Your task to perform on an android device: Open Youtube and go to "Your channel" Image 0: 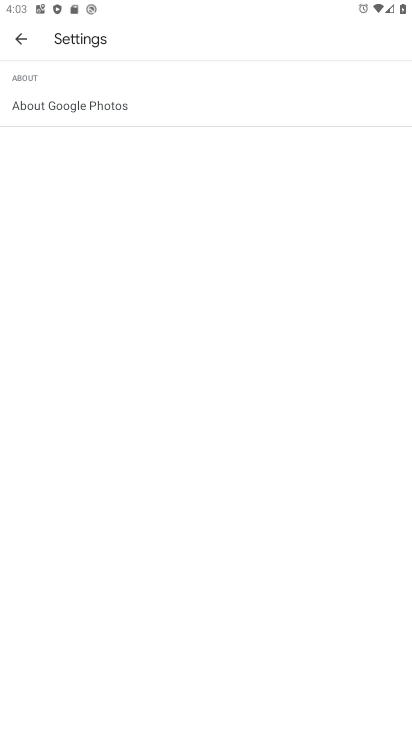
Step 0: press home button
Your task to perform on an android device: Open Youtube and go to "Your channel" Image 1: 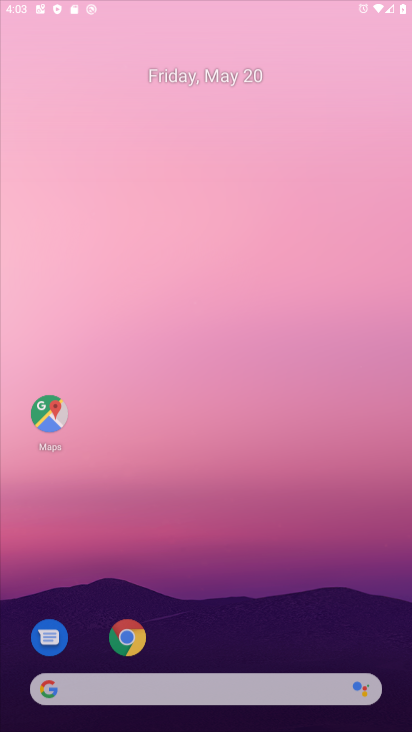
Step 1: press home button
Your task to perform on an android device: Open Youtube and go to "Your channel" Image 2: 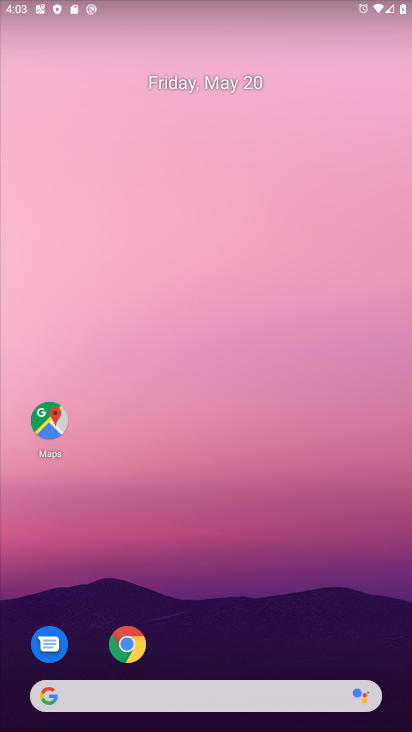
Step 2: drag from (287, 622) to (368, 55)
Your task to perform on an android device: Open Youtube and go to "Your channel" Image 3: 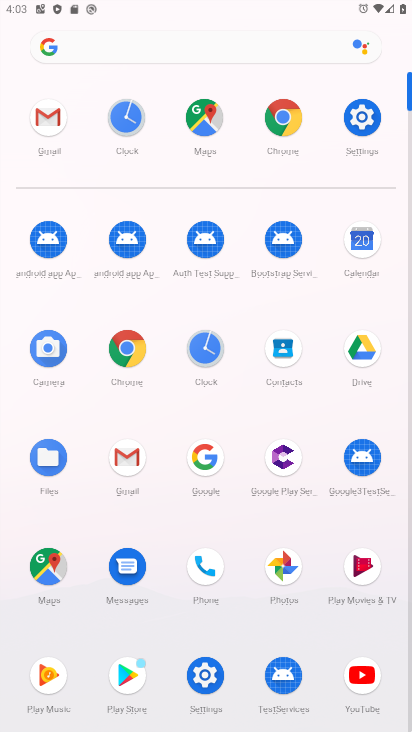
Step 3: click (373, 689)
Your task to perform on an android device: Open Youtube and go to "Your channel" Image 4: 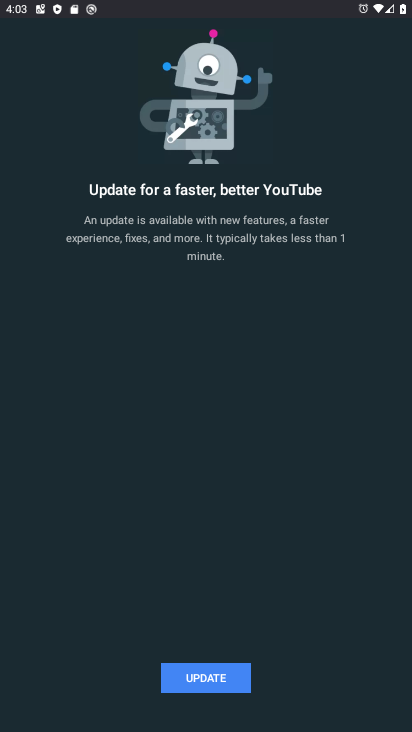
Step 4: click (228, 680)
Your task to perform on an android device: Open Youtube and go to "Your channel" Image 5: 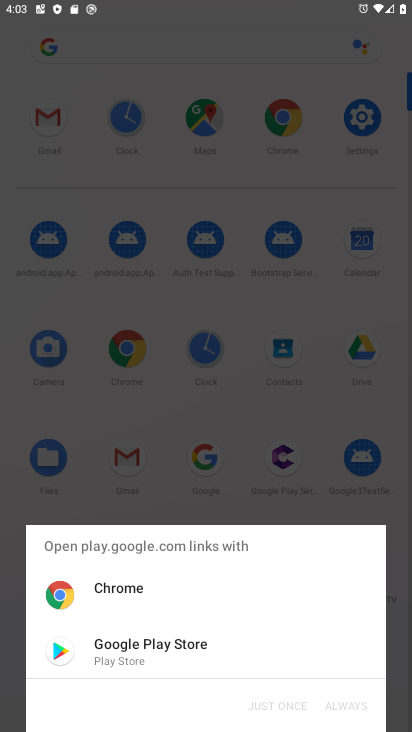
Step 5: click (112, 630)
Your task to perform on an android device: Open Youtube and go to "Your channel" Image 6: 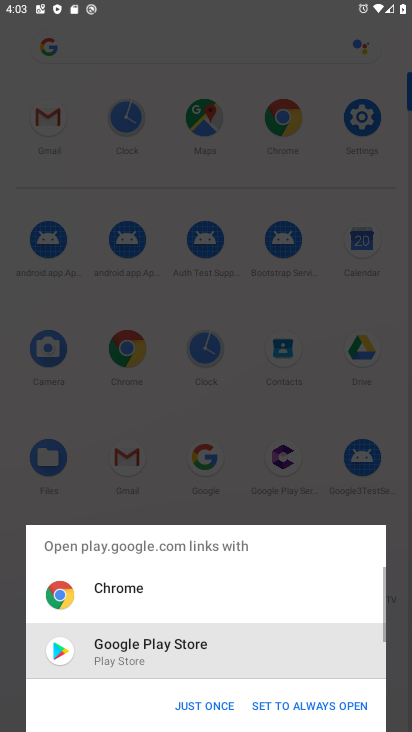
Step 6: click (177, 710)
Your task to perform on an android device: Open Youtube and go to "Your channel" Image 7: 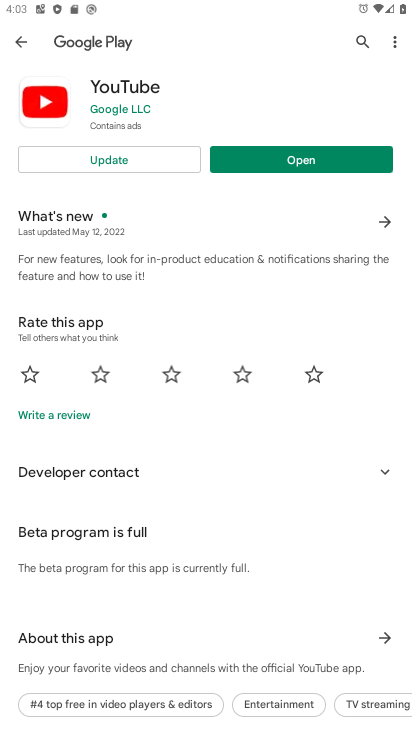
Step 7: click (73, 166)
Your task to perform on an android device: Open Youtube and go to "Your channel" Image 8: 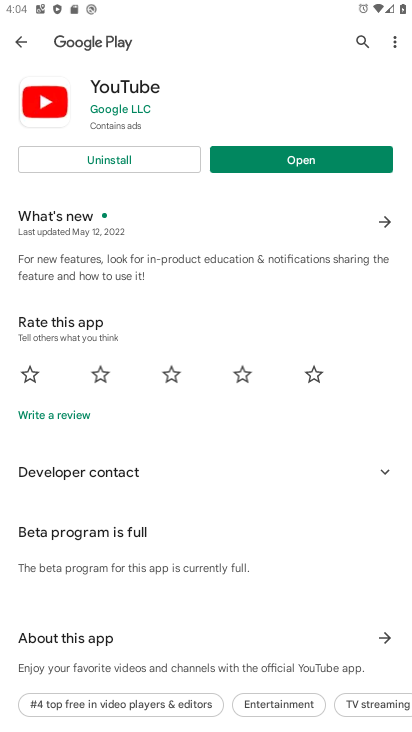
Step 8: click (271, 152)
Your task to perform on an android device: Open Youtube and go to "Your channel" Image 9: 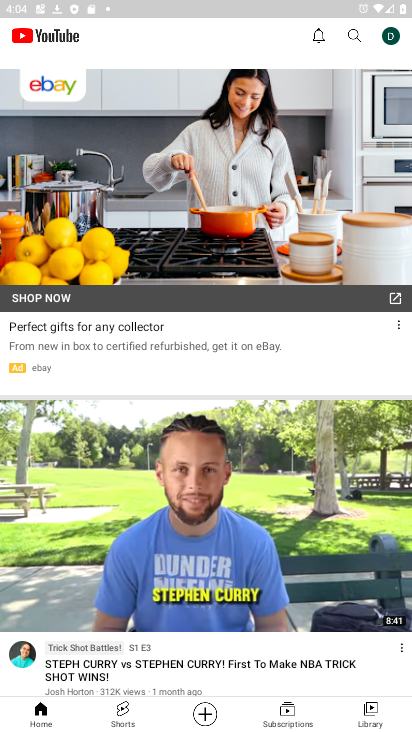
Step 9: click (389, 40)
Your task to perform on an android device: Open Youtube and go to "Your channel" Image 10: 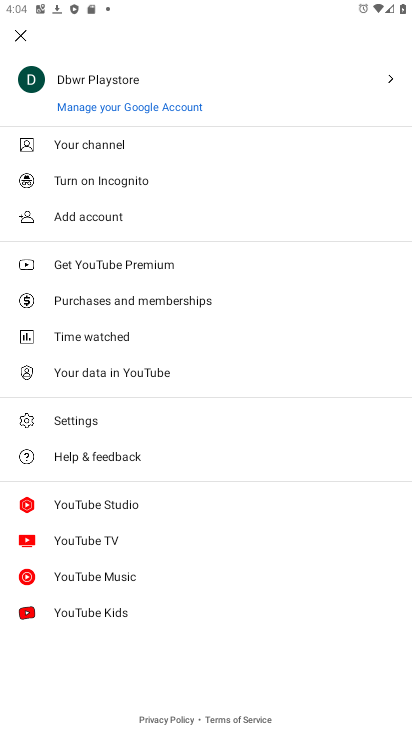
Step 10: click (227, 134)
Your task to perform on an android device: Open Youtube and go to "Your channel" Image 11: 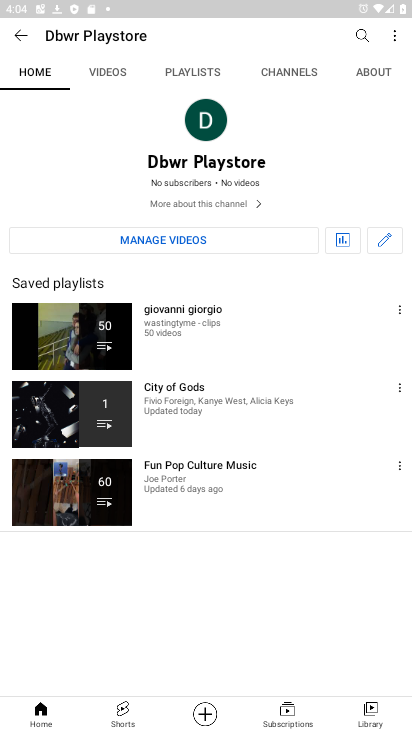
Step 11: task complete